Your task to perform on an android device: change keyboard looks Image 0: 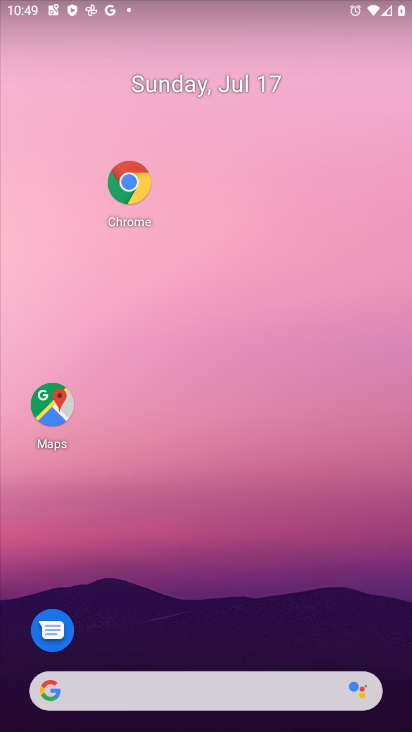
Step 0: drag from (199, 618) to (180, 125)
Your task to perform on an android device: change keyboard looks Image 1: 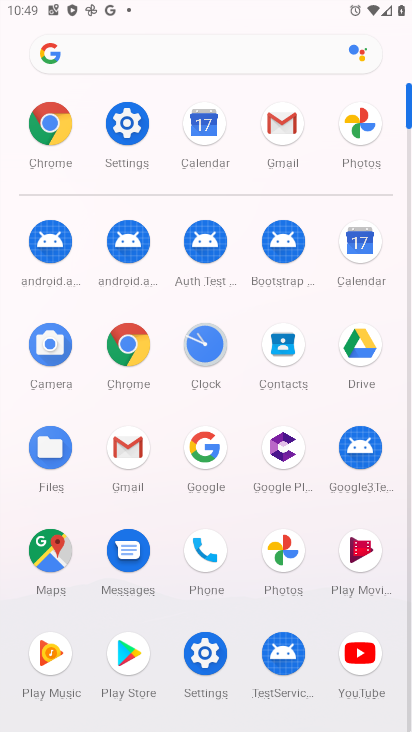
Step 1: click (122, 120)
Your task to perform on an android device: change keyboard looks Image 2: 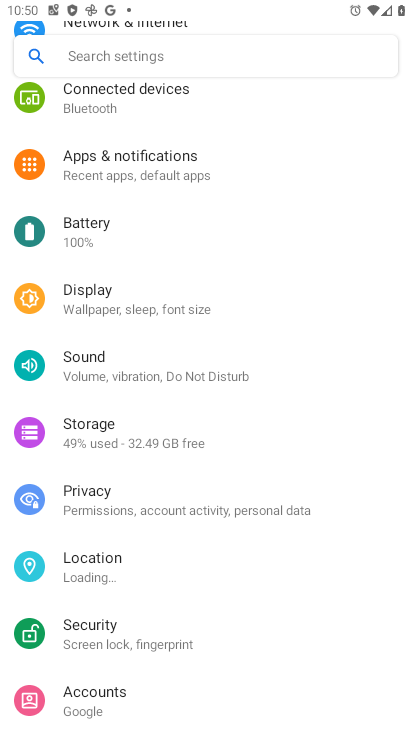
Step 2: drag from (96, 587) to (97, 316)
Your task to perform on an android device: change keyboard looks Image 3: 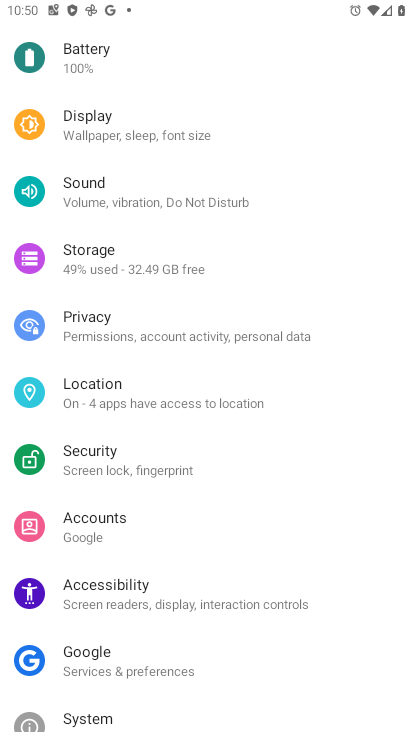
Step 3: click (99, 715)
Your task to perform on an android device: change keyboard looks Image 4: 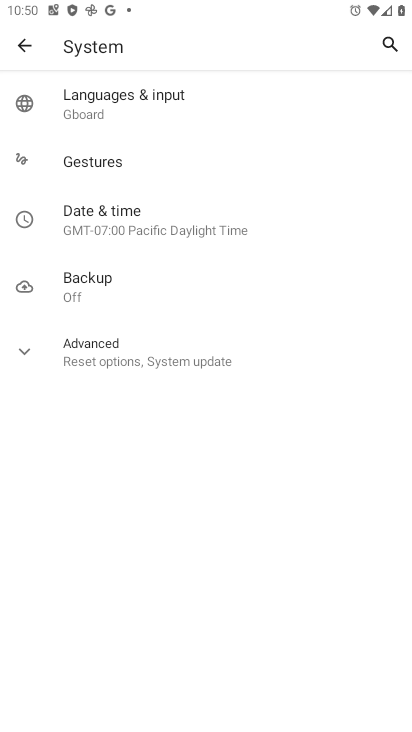
Step 4: click (89, 105)
Your task to perform on an android device: change keyboard looks Image 5: 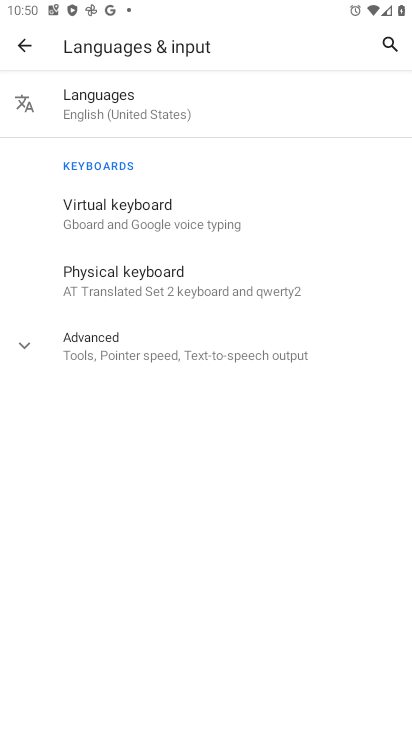
Step 5: click (109, 225)
Your task to perform on an android device: change keyboard looks Image 6: 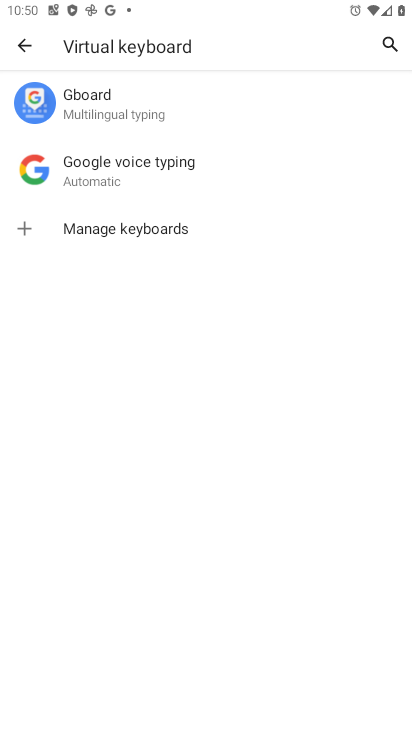
Step 6: click (73, 101)
Your task to perform on an android device: change keyboard looks Image 7: 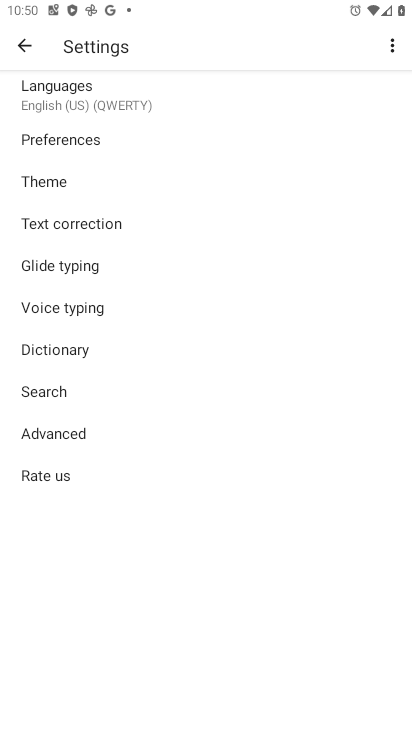
Step 7: click (20, 44)
Your task to perform on an android device: change keyboard looks Image 8: 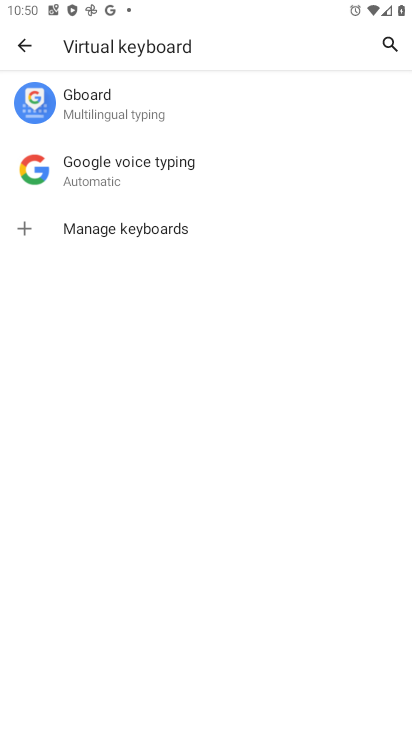
Step 8: click (73, 110)
Your task to perform on an android device: change keyboard looks Image 9: 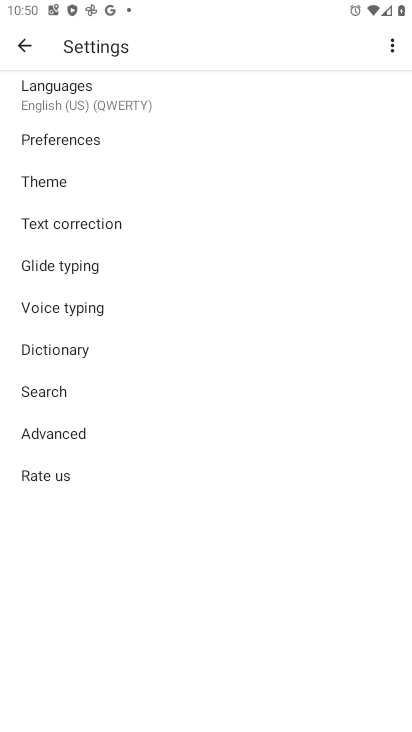
Step 9: click (37, 186)
Your task to perform on an android device: change keyboard looks Image 10: 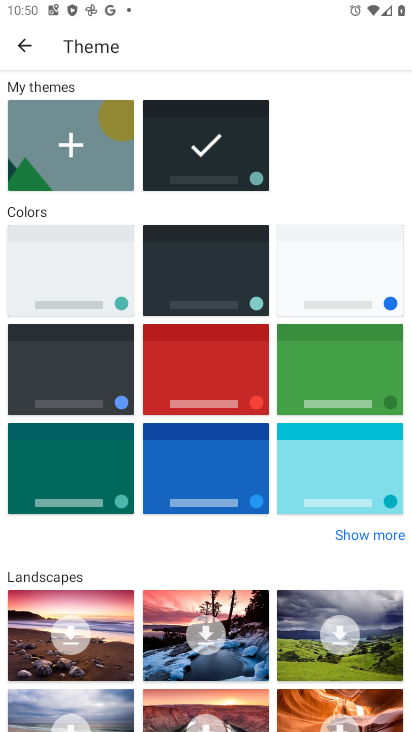
Step 10: click (179, 250)
Your task to perform on an android device: change keyboard looks Image 11: 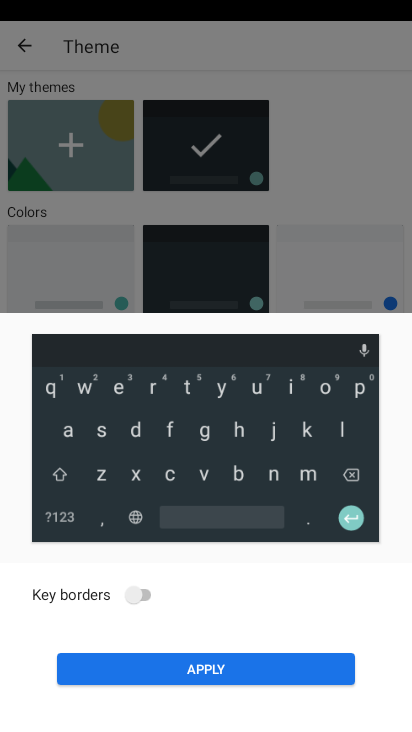
Step 11: click (227, 663)
Your task to perform on an android device: change keyboard looks Image 12: 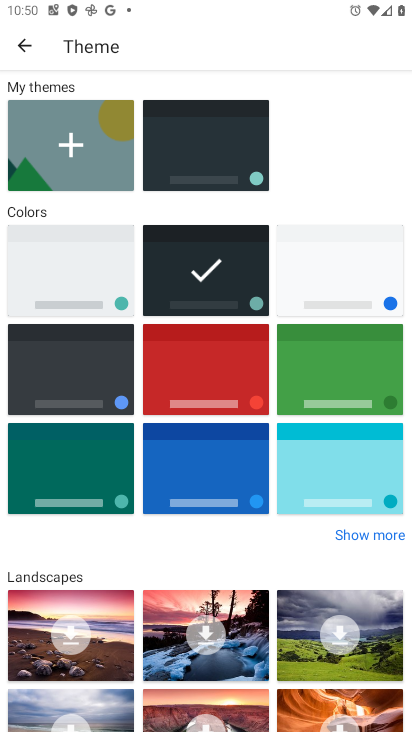
Step 12: task complete